Your task to perform on an android device: change your default location settings in chrome Image 0: 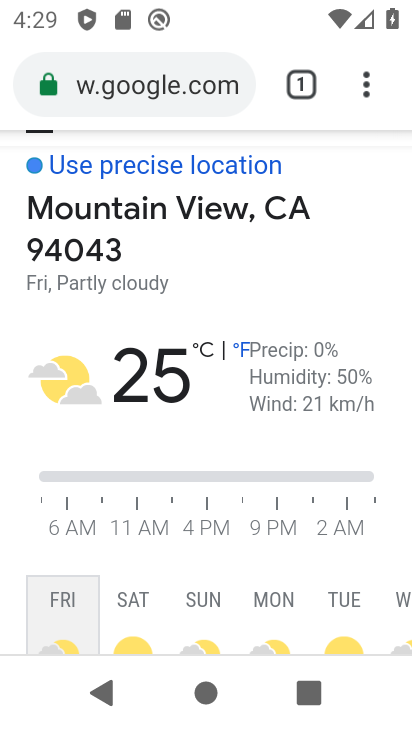
Step 0: drag from (371, 92) to (242, 475)
Your task to perform on an android device: change your default location settings in chrome Image 1: 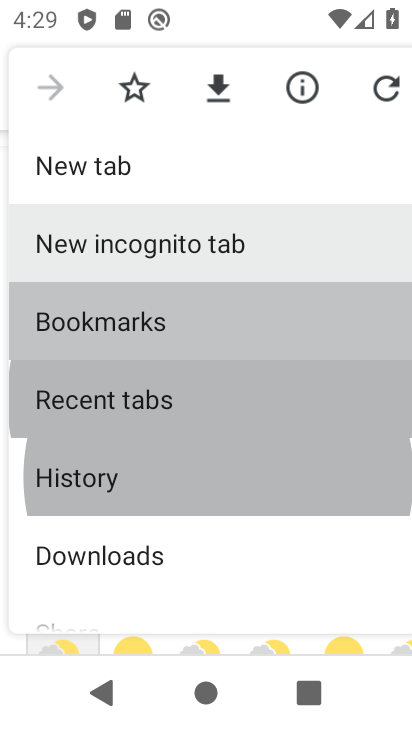
Step 1: drag from (246, 480) to (360, 149)
Your task to perform on an android device: change your default location settings in chrome Image 2: 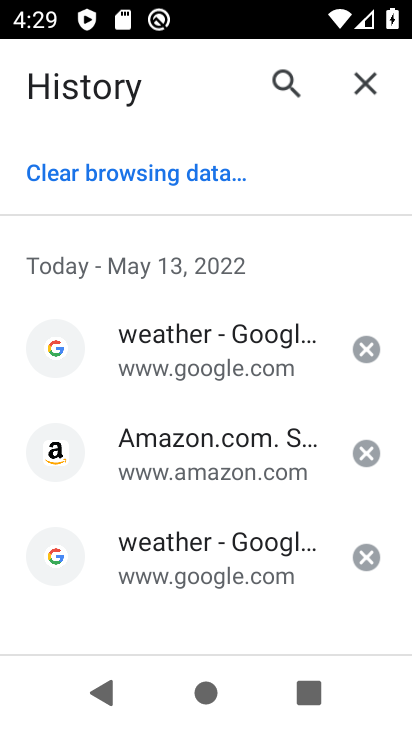
Step 2: click (369, 84)
Your task to perform on an android device: change your default location settings in chrome Image 3: 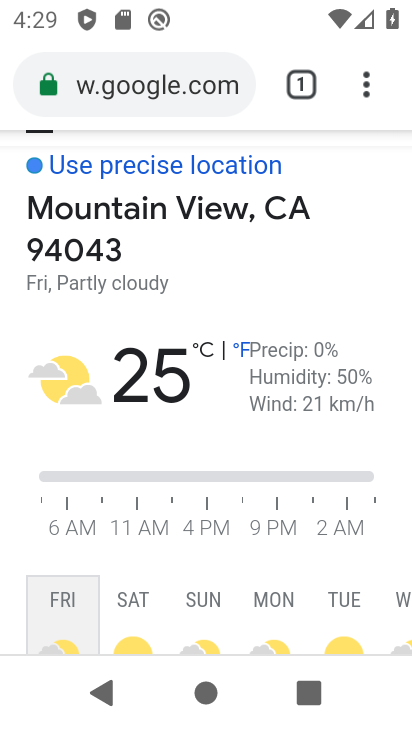
Step 3: click (368, 81)
Your task to perform on an android device: change your default location settings in chrome Image 4: 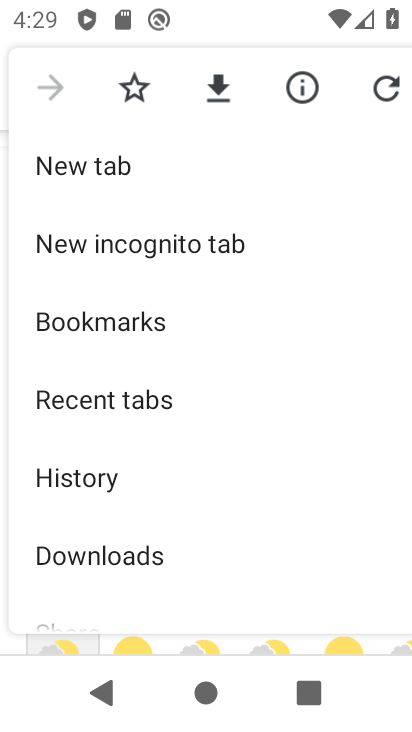
Step 4: drag from (132, 497) to (248, 202)
Your task to perform on an android device: change your default location settings in chrome Image 5: 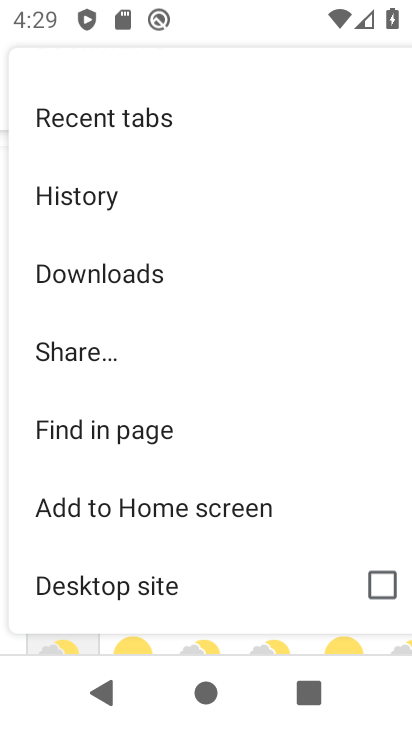
Step 5: drag from (109, 519) to (307, 188)
Your task to perform on an android device: change your default location settings in chrome Image 6: 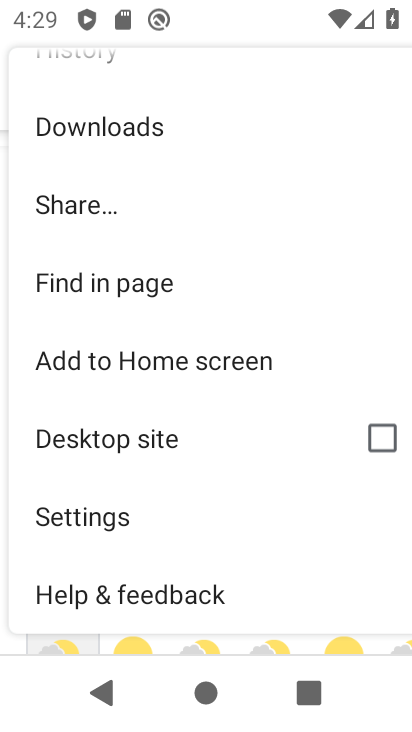
Step 6: click (81, 527)
Your task to perform on an android device: change your default location settings in chrome Image 7: 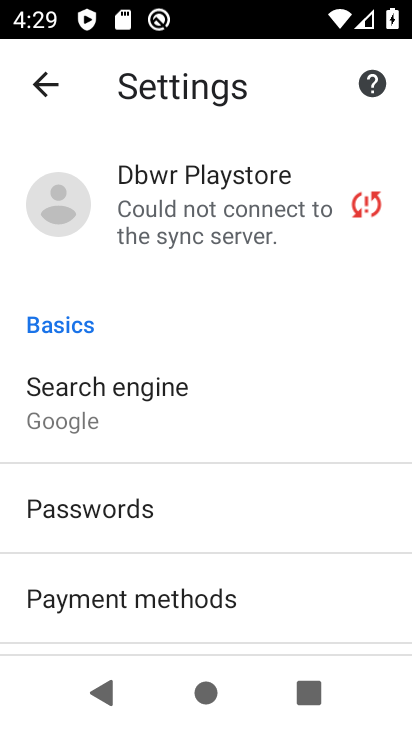
Step 7: drag from (137, 574) to (309, 278)
Your task to perform on an android device: change your default location settings in chrome Image 8: 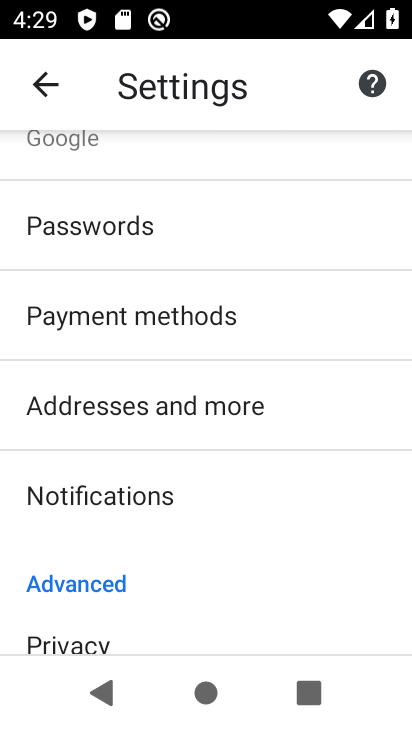
Step 8: drag from (164, 552) to (311, 287)
Your task to perform on an android device: change your default location settings in chrome Image 9: 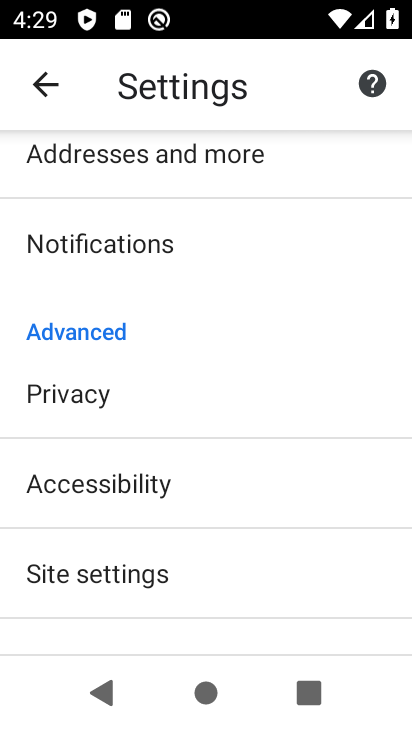
Step 9: drag from (139, 529) to (313, 294)
Your task to perform on an android device: change your default location settings in chrome Image 10: 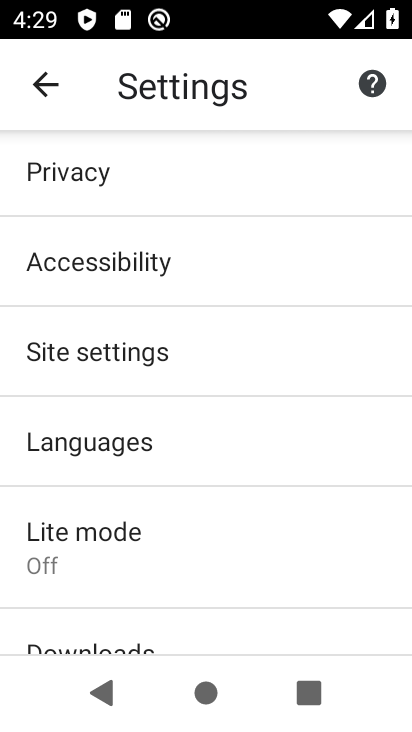
Step 10: click (220, 346)
Your task to perform on an android device: change your default location settings in chrome Image 11: 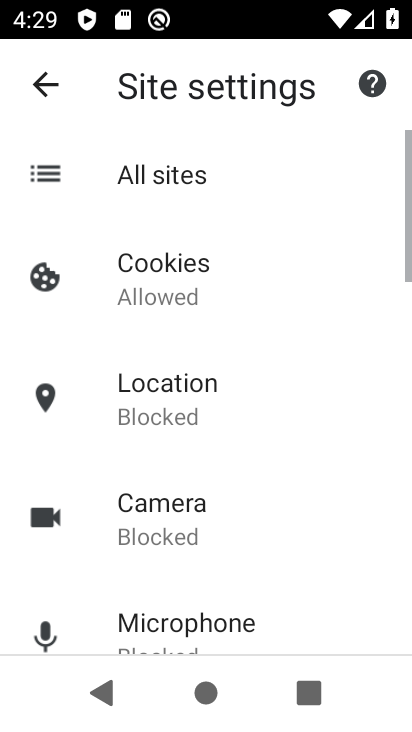
Step 11: click (211, 410)
Your task to perform on an android device: change your default location settings in chrome Image 12: 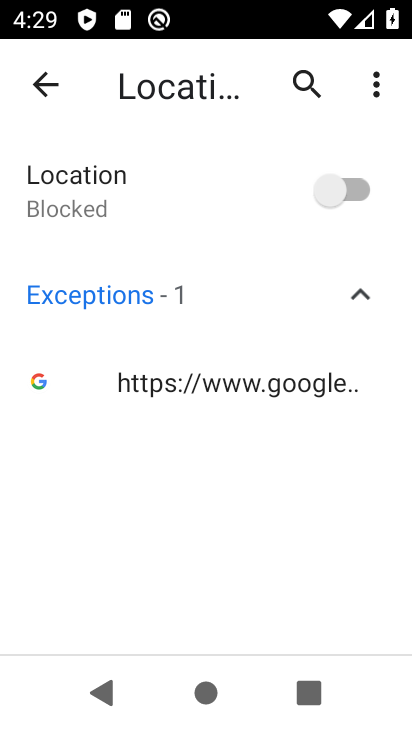
Step 12: click (322, 190)
Your task to perform on an android device: change your default location settings in chrome Image 13: 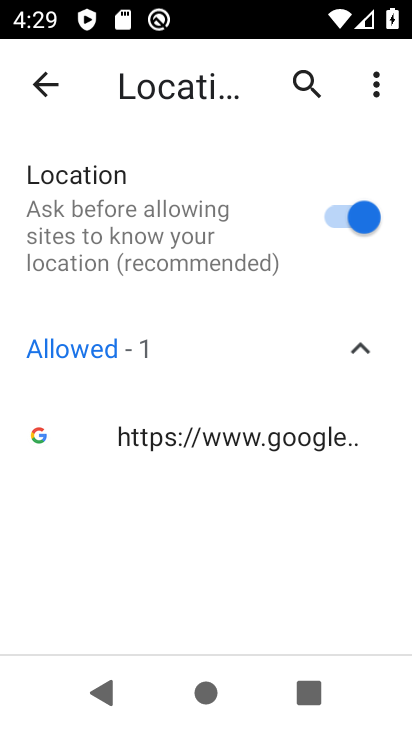
Step 13: task complete